Your task to perform on an android device: Open settings on Google Maps Image 0: 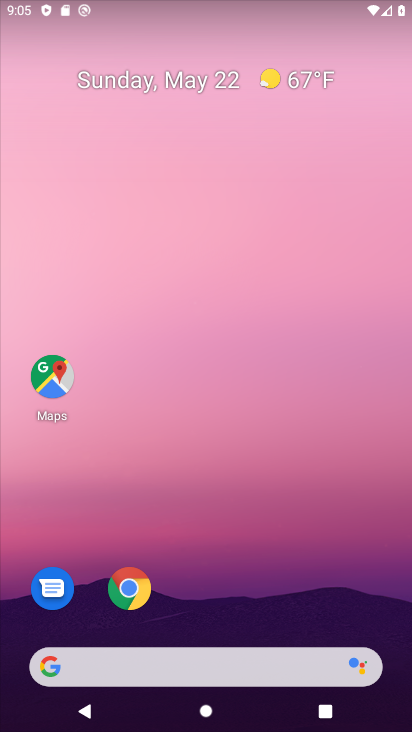
Step 0: click (51, 382)
Your task to perform on an android device: Open settings on Google Maps Image 1: 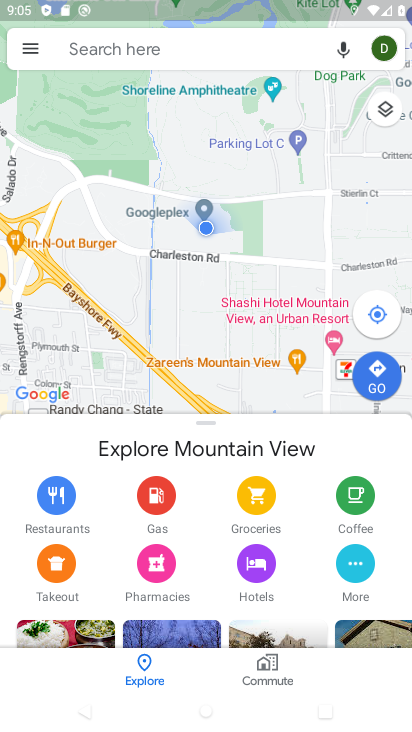
Step 1: task complete